Your task to perform on an android device: toggle notification dots Image 0: 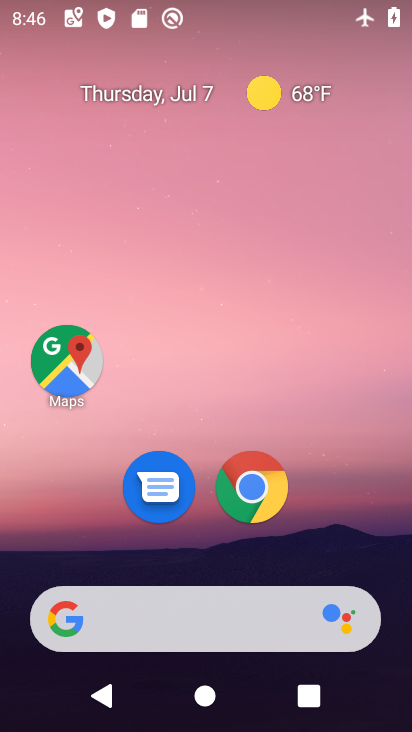
Step 0: drag from (233, 571) to (242, 19)
Your task to perform on an android device: toggle notification dots Image 1: 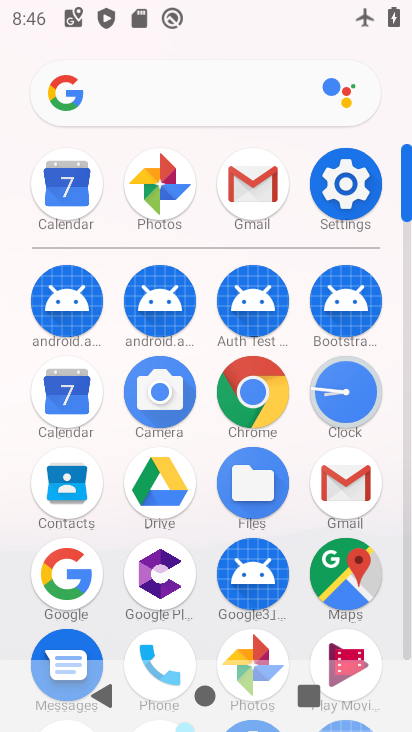
Step 1: click (337, 183)
Your task to perform on an android device: toggle notification dots Image 2: 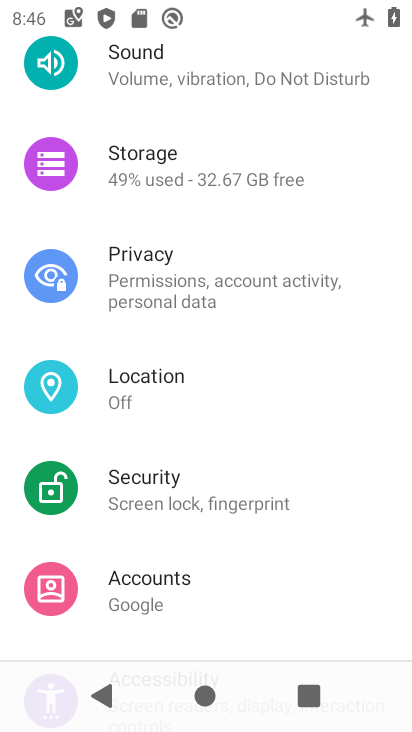
Step 2: drag from (240, 197) to (276, 480)
Your task to perform on an android device: toggle notification dots Image 3: 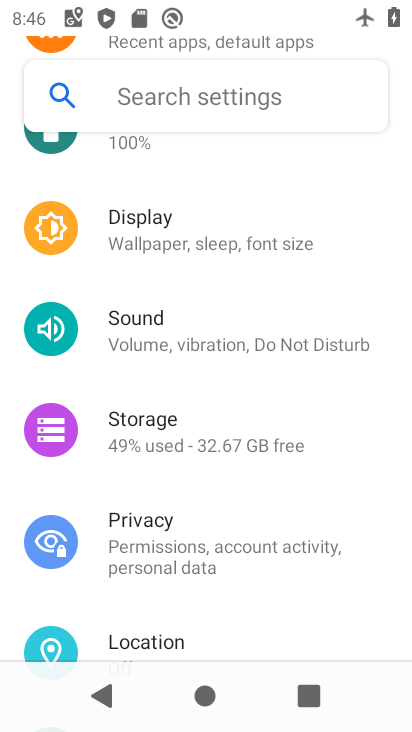
Step 3: drag from (273, 473) to (231, 32)
Your task to perform on an android device: toggle notification dots Image 4: 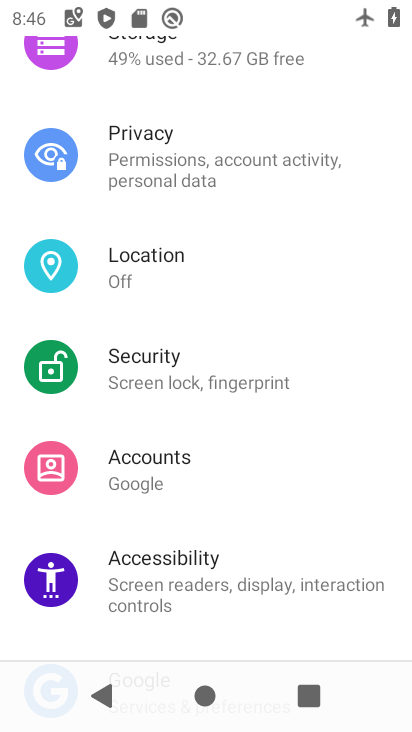
Step 4: drag from (257, 552) to (218, 644)
Your task to perform on an android device: toggle notification dots Image 5: 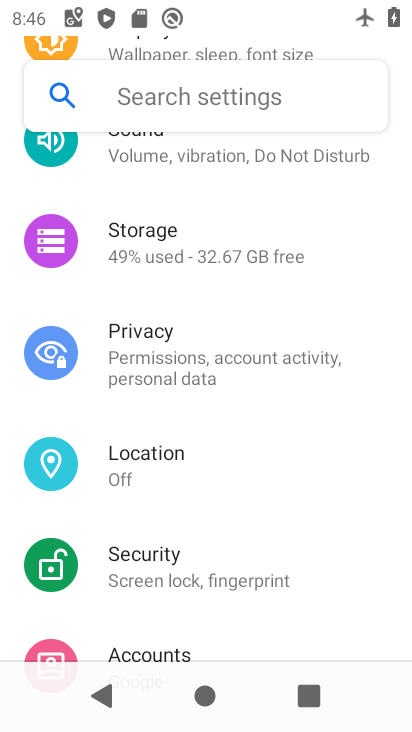
Step 5: drag from (159, 181) to (157, 634)
Your task to perform on an android device: toggle notification dots Image 6: 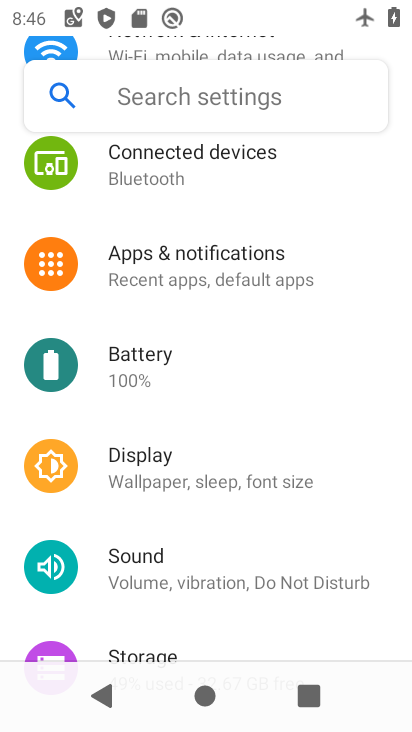
Step 6: click (152, 236)
Your task to perform on an android device: toggle notification dots Image 7: 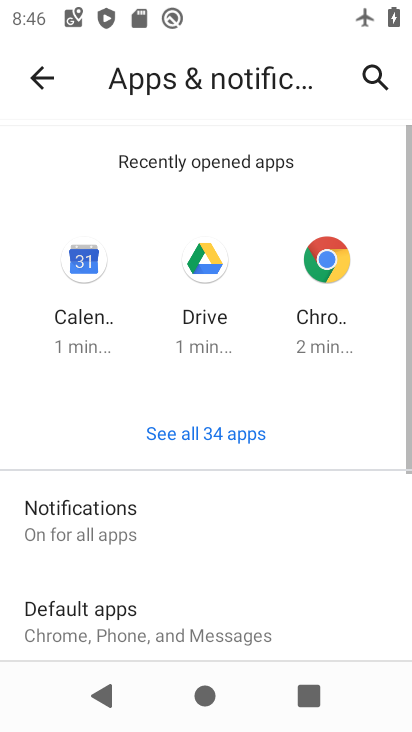
Step 7: click (128, 482)
Your task to perform on an android device: toggle notification dots Image 8: 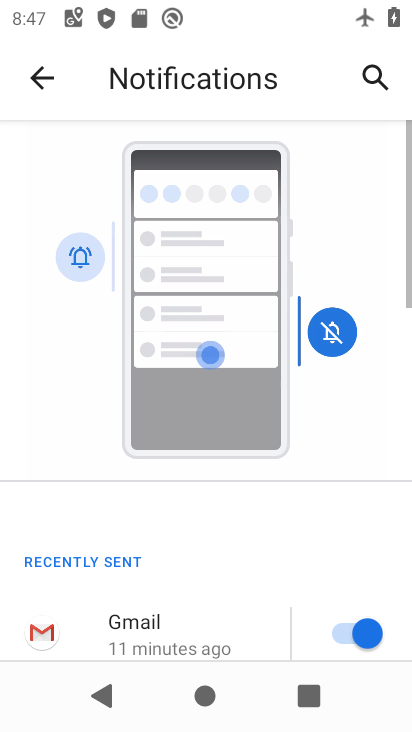
Step 8: drag from (191, 566) to (157, 50)
Your task to perform on an android device: toggle notification dots Image 9: 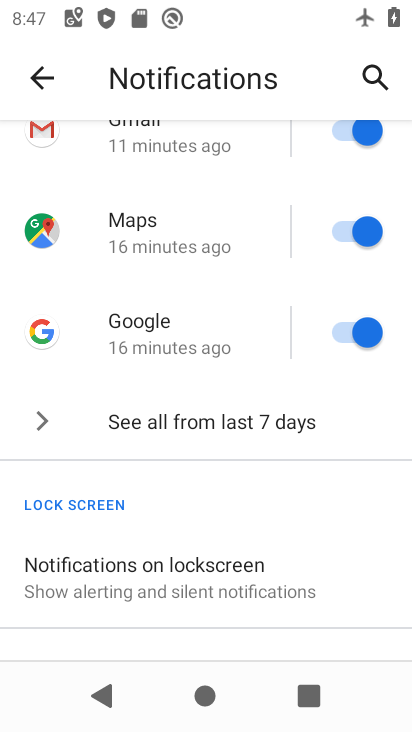
Step 9: drag from (234, 580) to (179, 207)
Your task to perform on an android device: toggle notification dots Image 10: 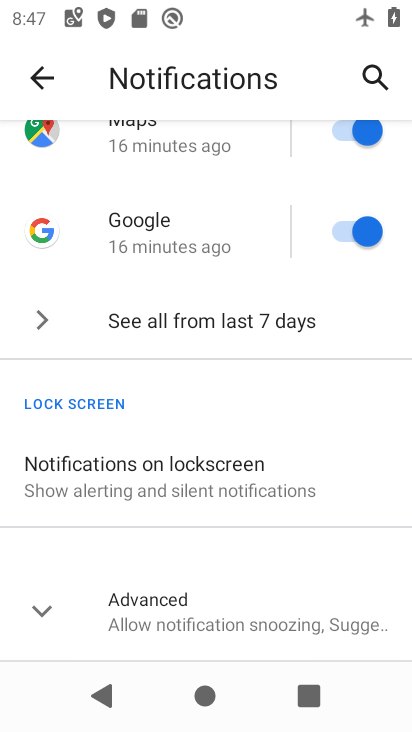
Step 10: click (217, 608)
Your task to perform on an android device: toggle notification dots Image 11: 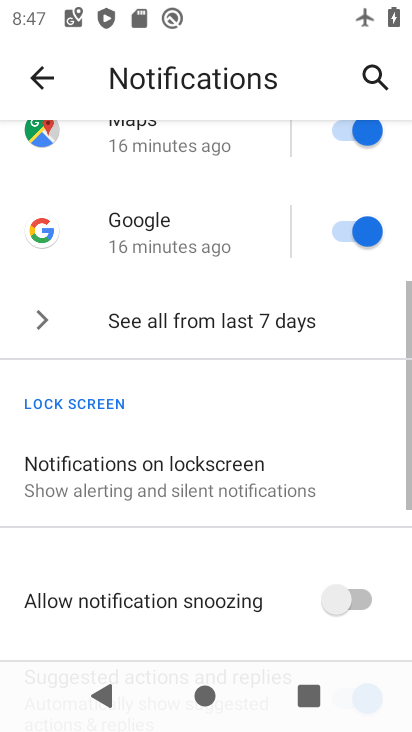
Step 11: drag from (216, 608) to (165, 268)
Your task to perform on an android device: toggle notification dots Image 12: 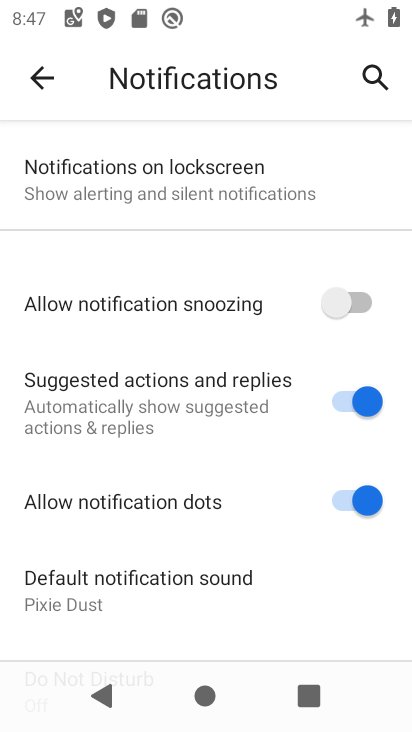
Step 12: click (364, 499)
Your task to perform on an android device: toggle notification dots Image 13: 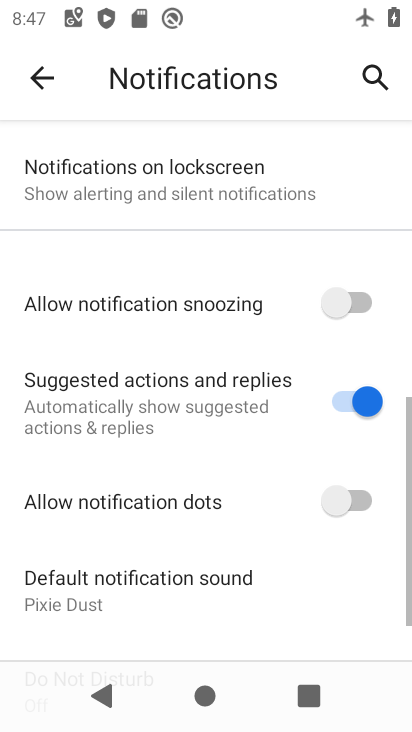
Step 13: task complete